Your task to perform on an android device: turn on location history Image 0: 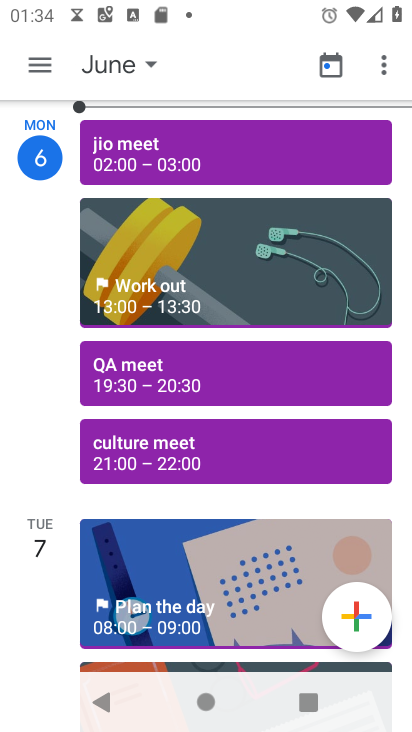
Step 0: press home button
Your task to perform on an android device: turn on location history Image 1: 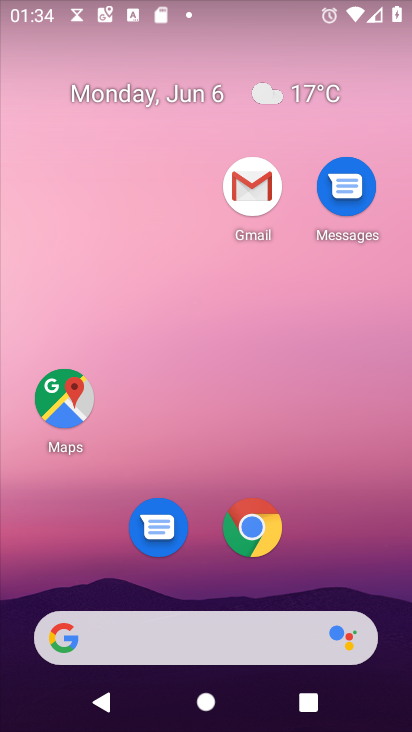
Step 1: drag from (315, 577) to (309, 63)
Your task to perform on an android device: turn on location history Image 2: 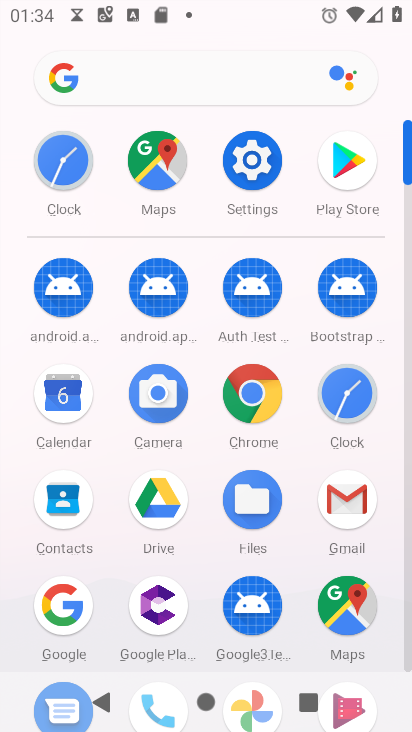
Step 2: click (256, 166)
Your task to perform on an android device: turn on location history Image 3: 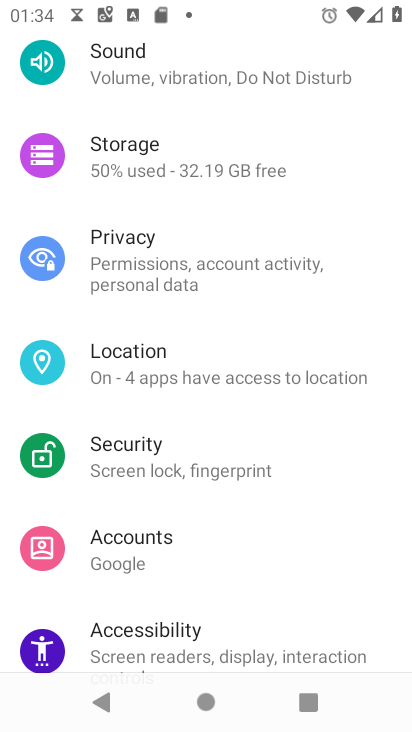
Step 3: click (234, 377)
Your task to perform on an android device: turn on location history Image 4: 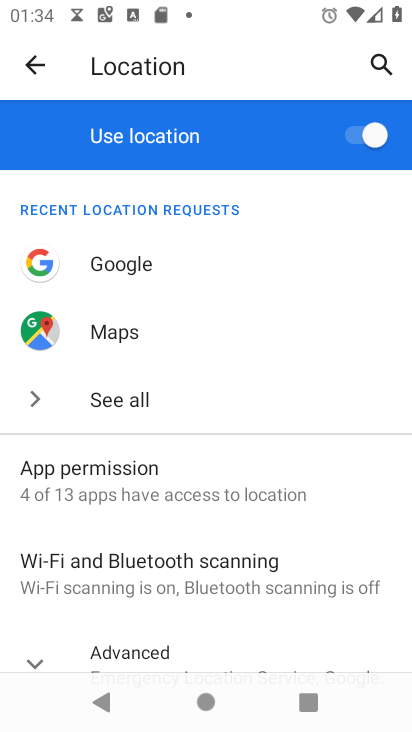
Step 4: drag from (310, 618) to (310, 262)
Your task to perform on an android device: turn on location history Image 5: 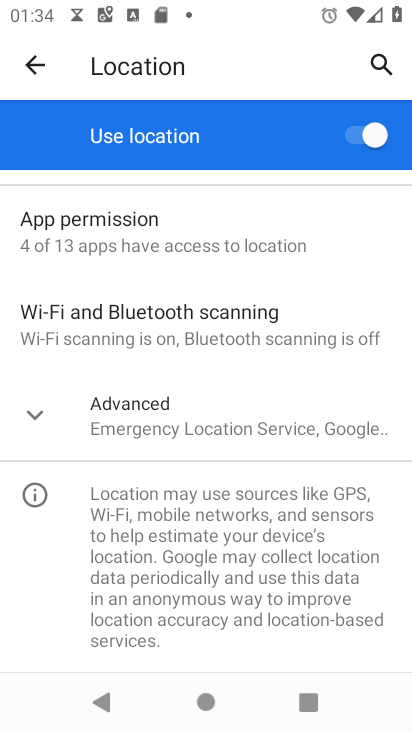
Step 5: click (220, 422)
Your task to perform on an android device: turn on location history Image 6: 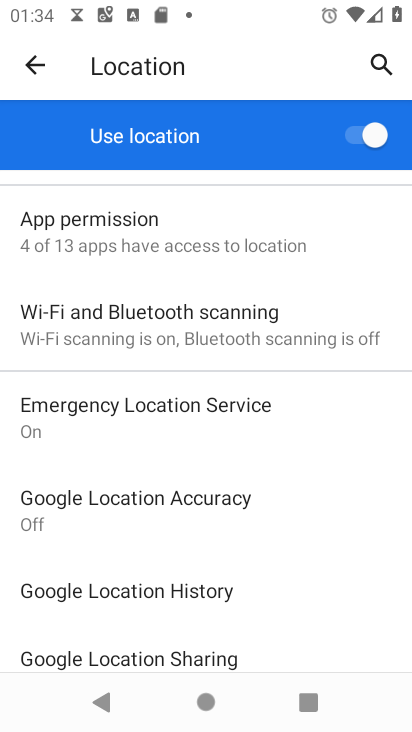
Step 6: click (203, 592)
Your task to perform on an android device: turn on location history Image 7: 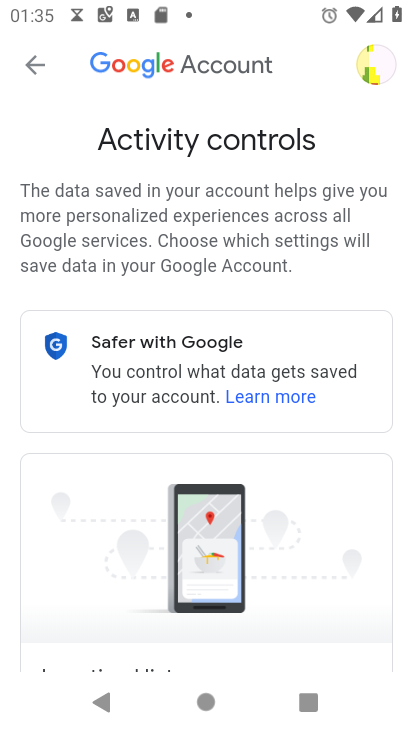
Step 7: task complete